Your task to perform on an android device: Open Google Maps Image 0: 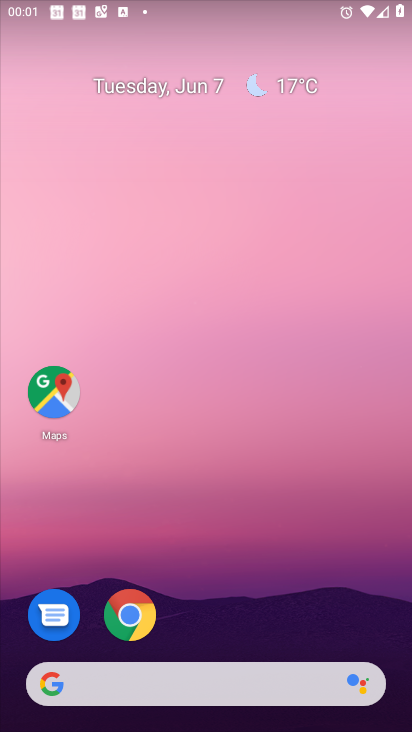
Step 0: click (42, 418)
Your task to perform on an android device: Open Google Maps Image 1: 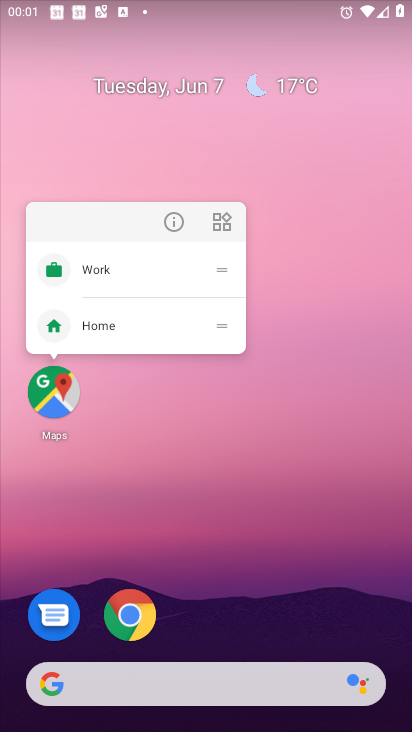
Step 1: click (56, 387)
Your task to perform on an android device: Open Google Maps Image 2: 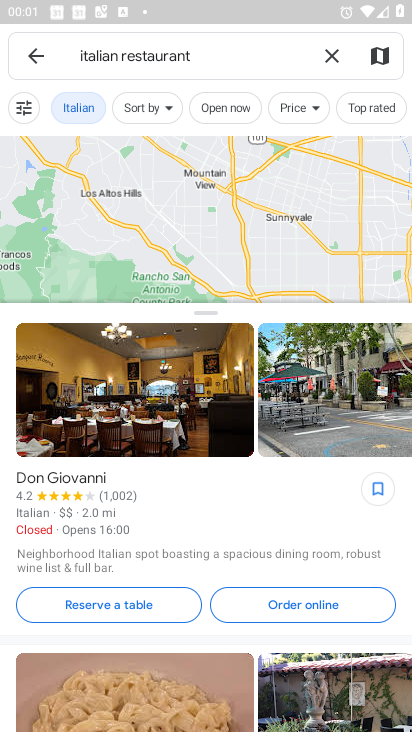
Step 2: task complete